Your task to perform on an android device: Search for Italian restaurants on Maps Image 0: 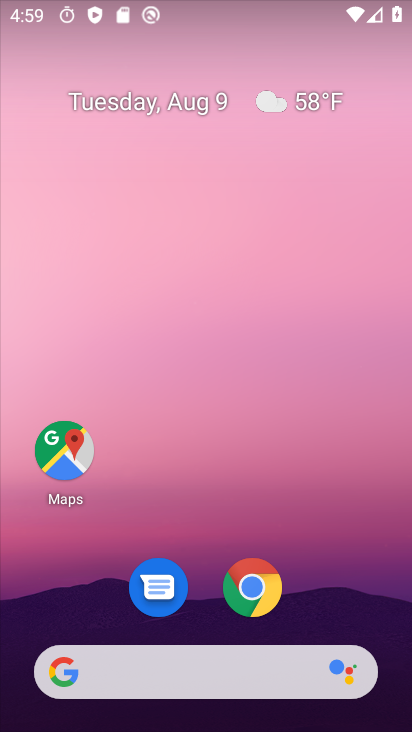
Step 0: click (59, 449)
Your task to perform on an android device: Search for Italian restaurants on Maps Image 1: 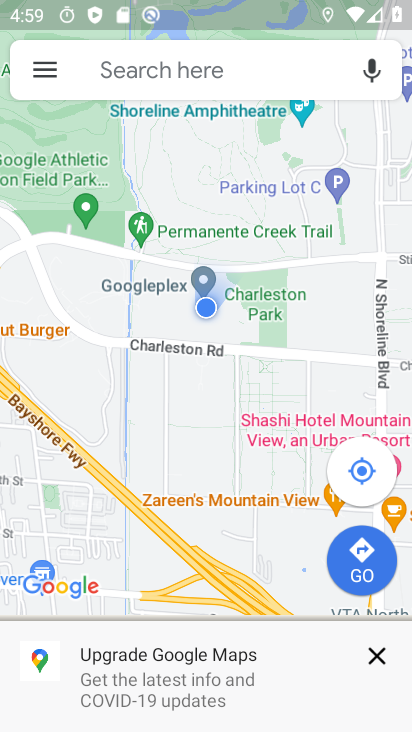
Step 1: click (188, 77)
Your task to perform on an android device: Search for Italian restaurants on Maps Image 2: 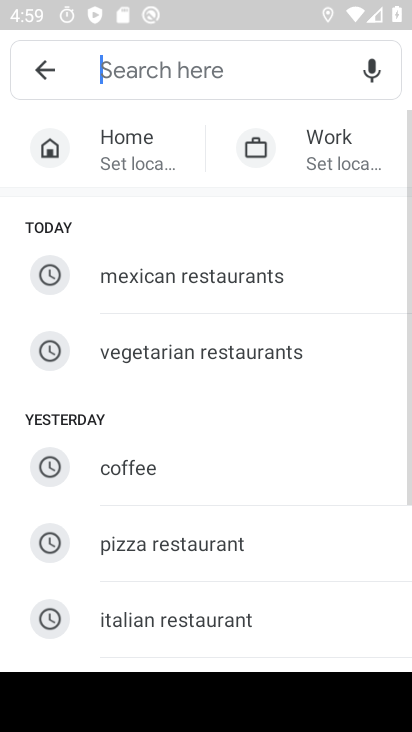
Step 2: click (237, 608)
Your task to perform on an android device: Search for Italian restaurants on Maps Image 3: 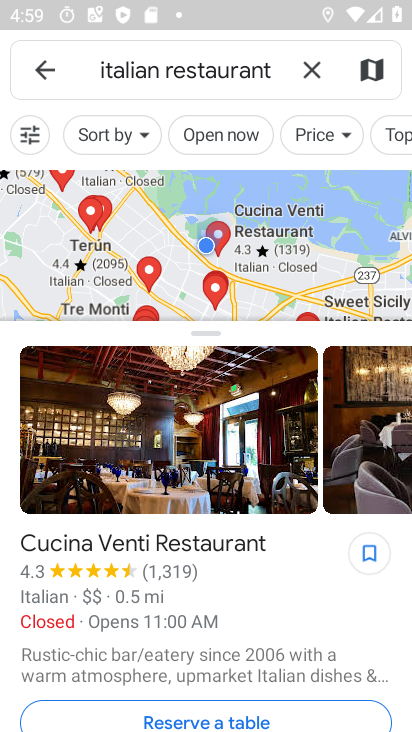
Step 3: task complete